Your task to perform on an android device: Empty the shopping cart on newegg.com. Add dell xps to the cart on newegg.com Image 0: 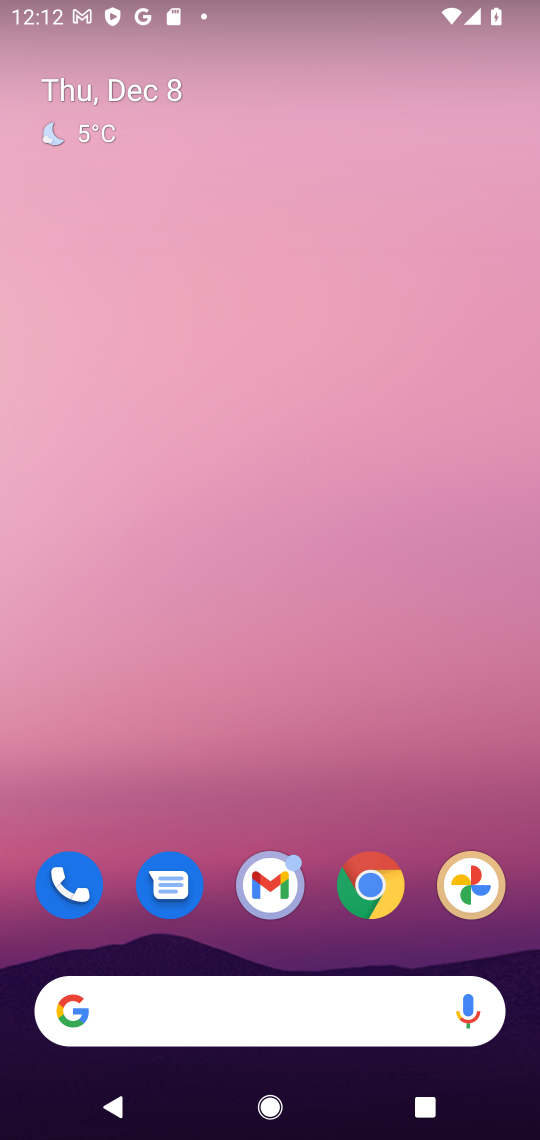
Step 0: click (361, 874)
Your task to perform on an android device: Empty the shopping cart on newegg.com. Add dell xps to the cart on newegg.com Image 1: 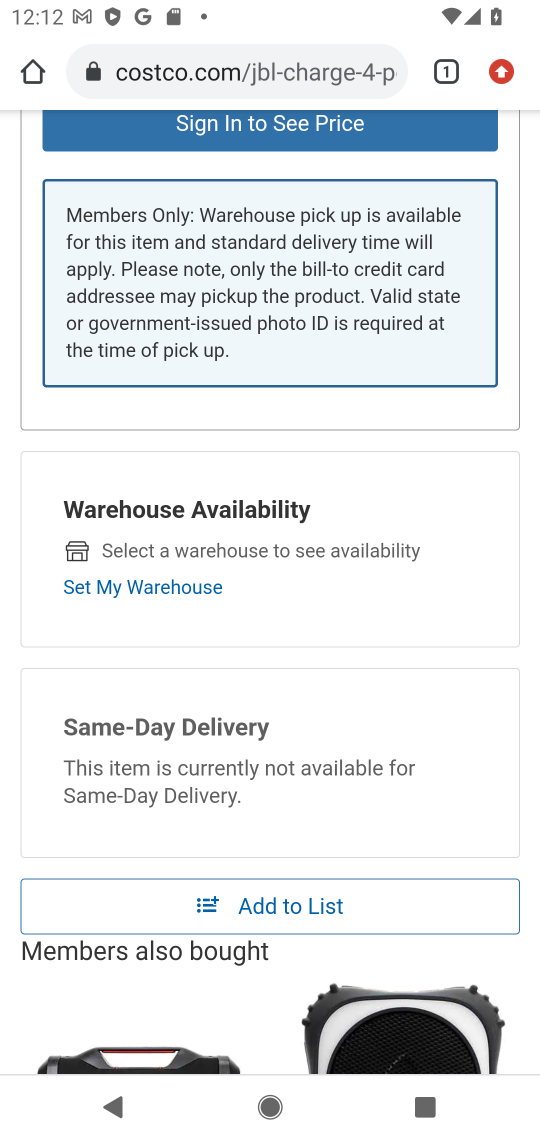
Step 1: click (329, 76)
Your task to perform on an android device: Empty the shopping cart on newegg.com. Add dell xps to the cart on newegg.com Image 2: 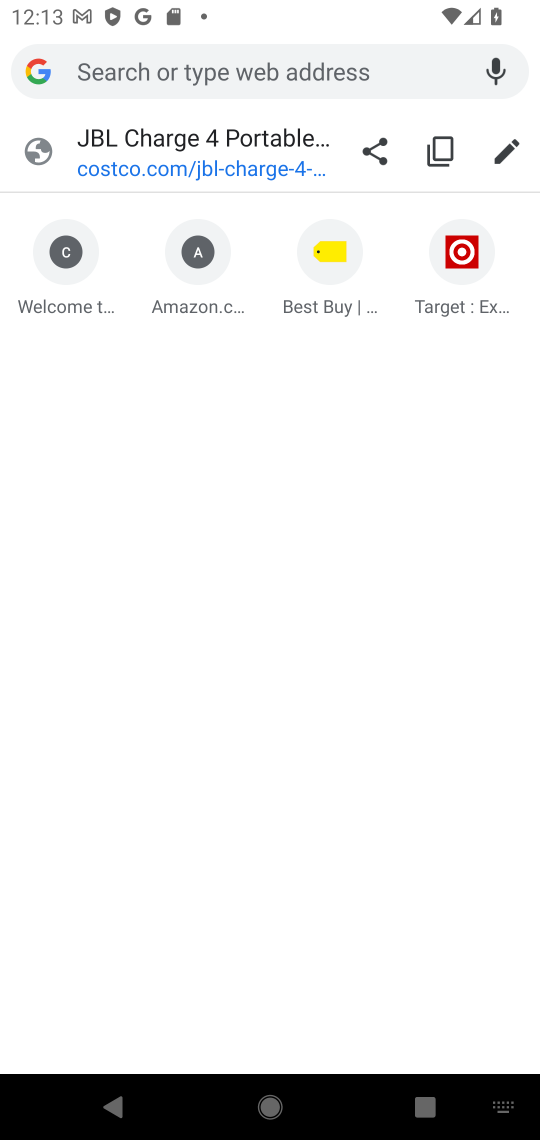
Step 2: type "NEWEGG"
Your task to perform on an android device: Empty the shopping cart on newegg.com. Add dell xps to the cart on newegg.com Image 3: 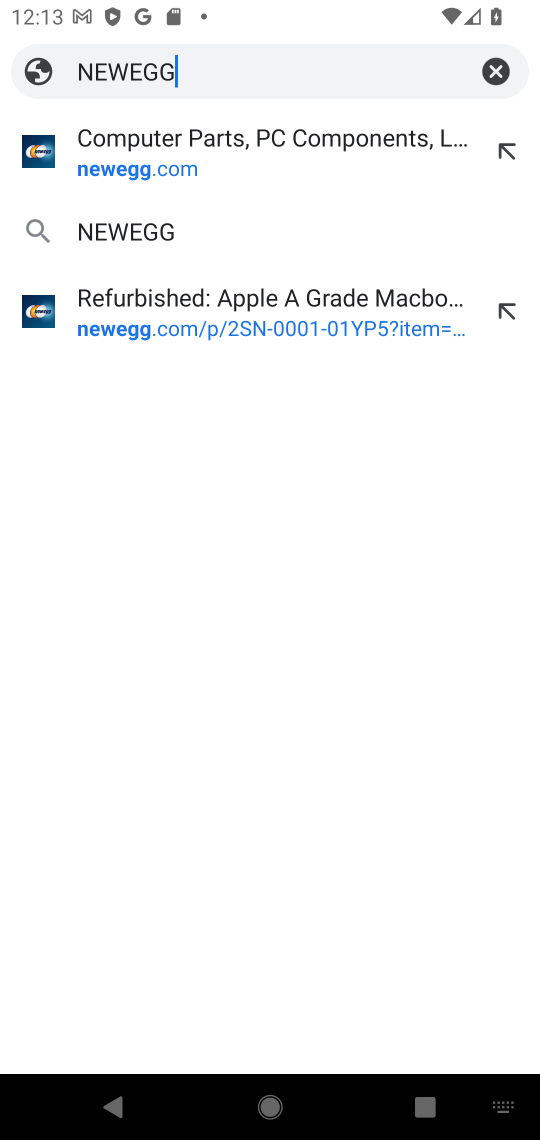
Step 3: click (222, 151)
Your task to perform on an android device: Empty the shopping cart on newegg.com. Add dell xps to the cart on newegg.com Image 4: 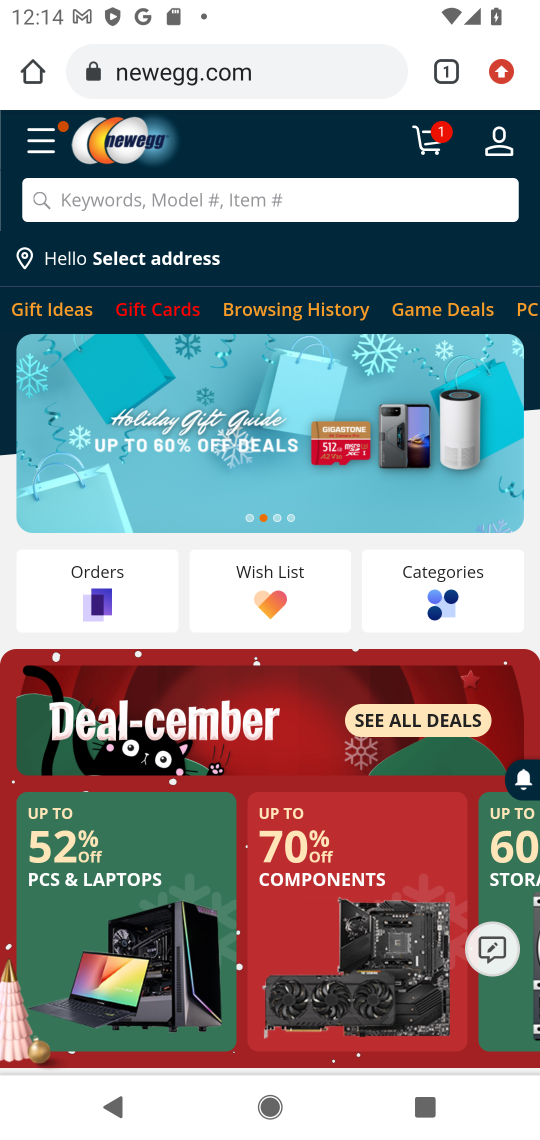
Step 4: click (424, 133)
Your task to perform on an android device: Empty the shopping cart on newegg.com. Add dell xps to the cart on newegg.com Image 5: 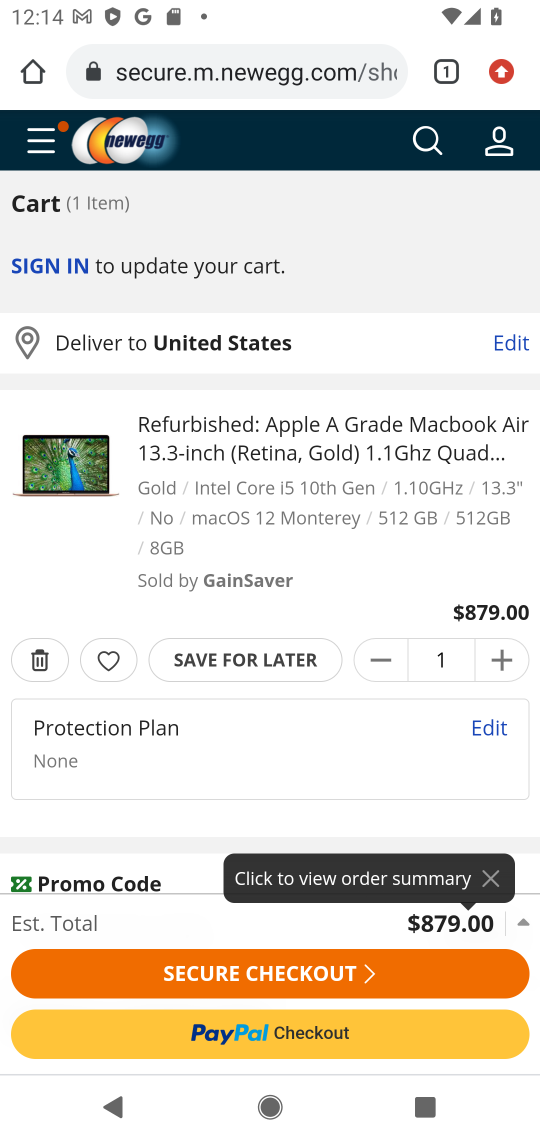
Step 5: click (34, 655)
Your task to perform on an android device: Empty the shopping cart on newegg.com. Add dell xps to the cart on newegg.com Image 6: 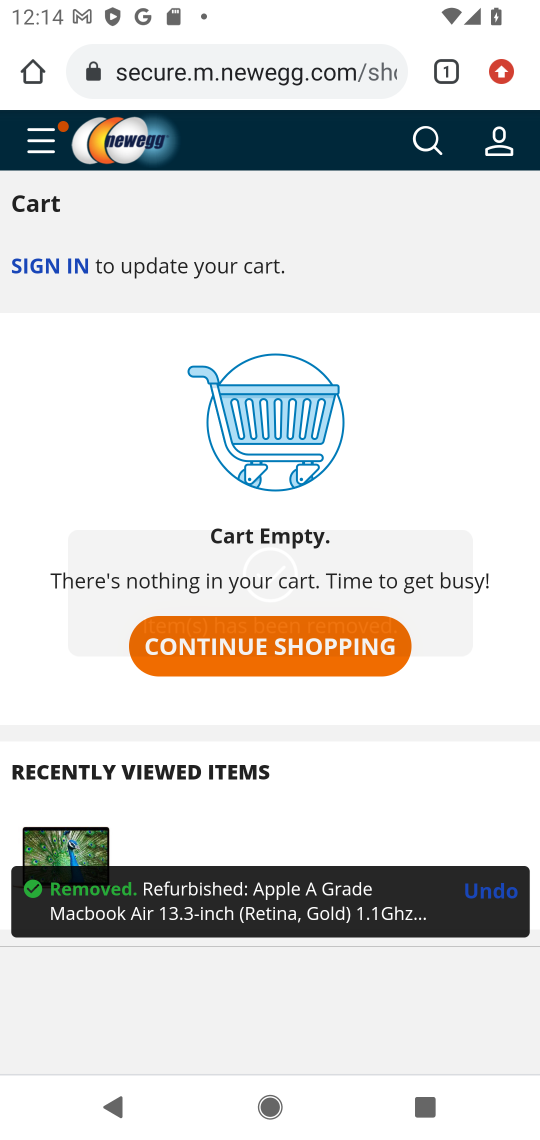
Step 6: click (418, 146)
Your task to perform on an android device: Empty the shopping cart on newegg.com. Add dell xps to the cart on newegg.com Image 7: 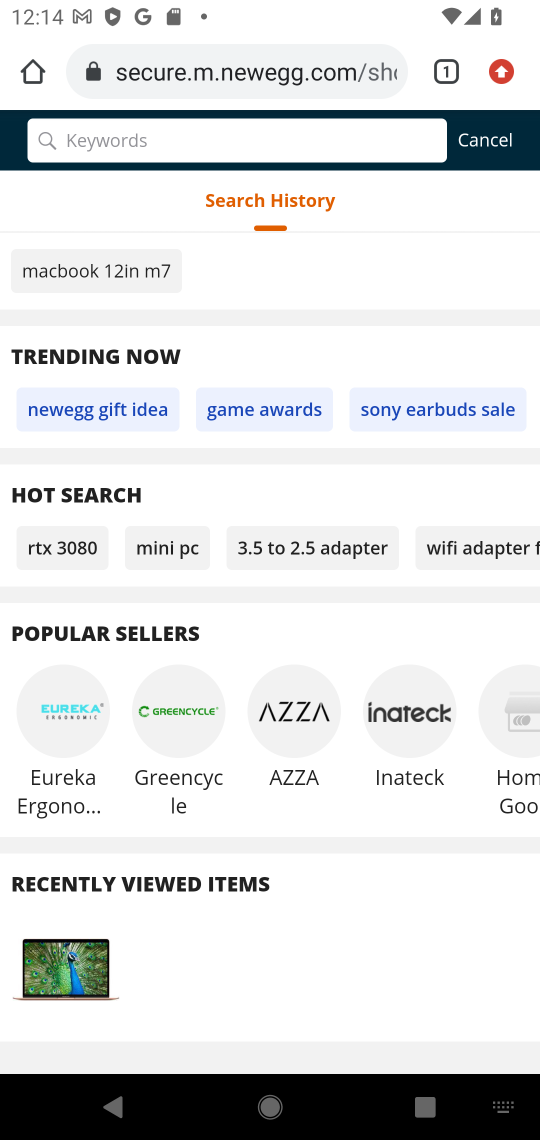
Step 7: type "DELL XPS"
Your task to perform on an android device: Empty the shopping cart on newegg.com. Add dell xps to the cart on newegg.com Image 8: 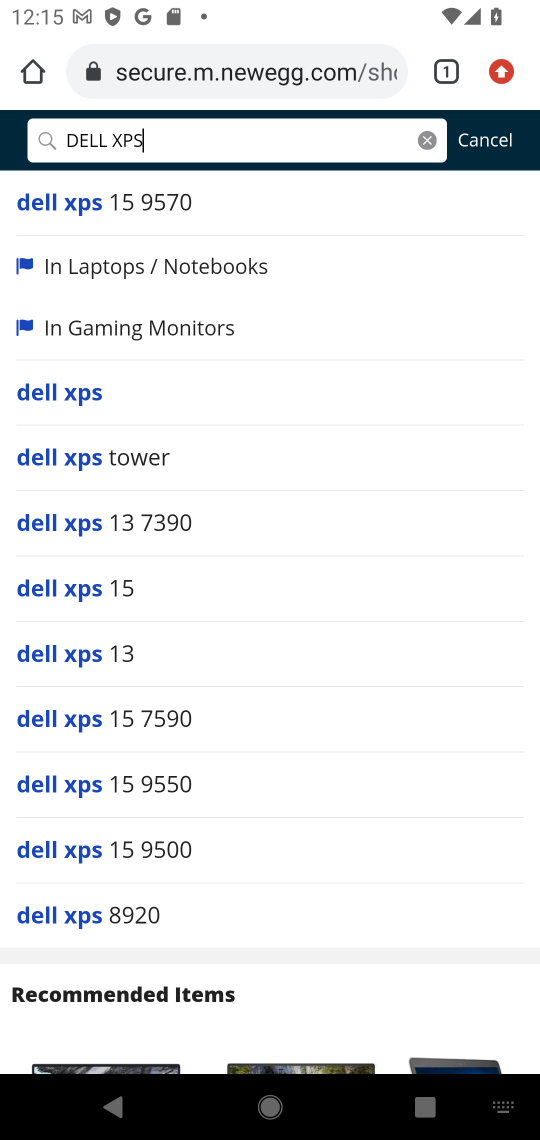
Step 8: click (99, 201)
Your task to perform on an android device: Empty the shopping cart on newegg.com. Add dell xps to the cart on newegg.com Image 9: 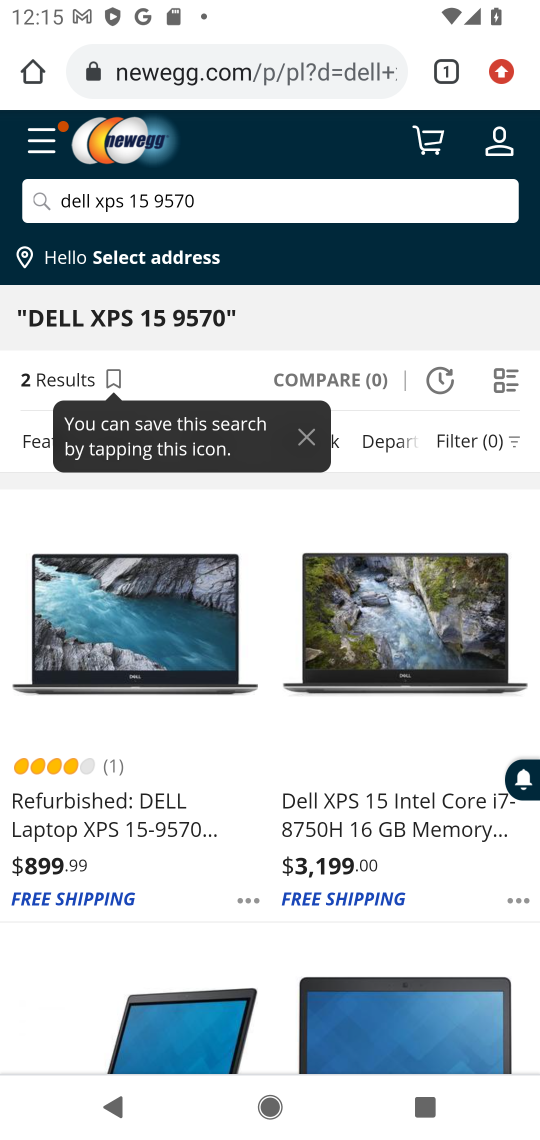
Step 9: click (82, 594)
Your task to perform on an android device: Empty the shopping cart on newegg.com. Add dell xps to the cart on newegg.com Image 10: 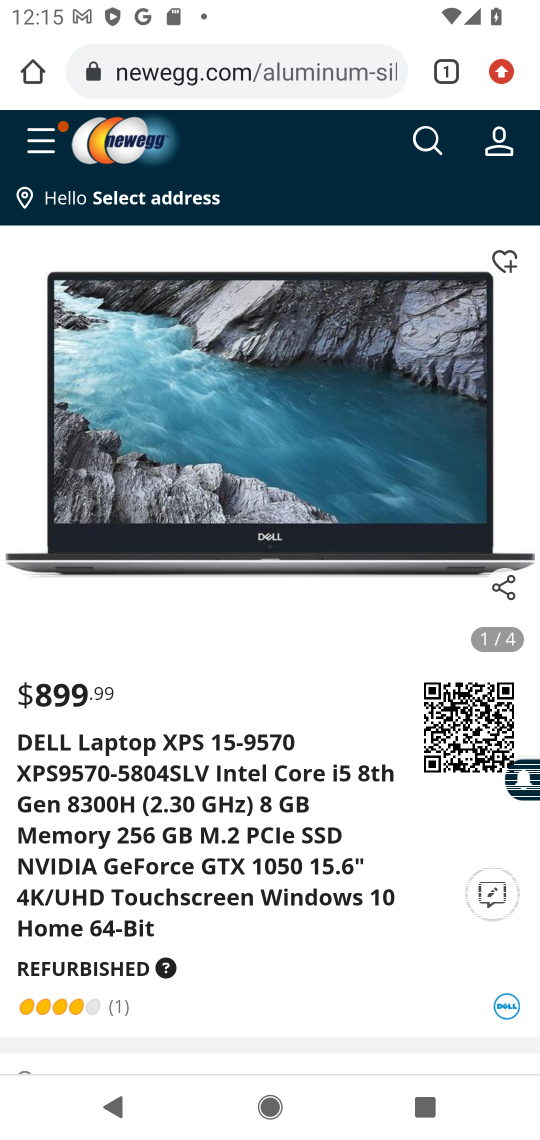
Step 10: click (292, 1038)
Your task to perform on an android device: Empty the shopping cart on newegg.com. Add dell xps to the cart on newegg.com Image 11: 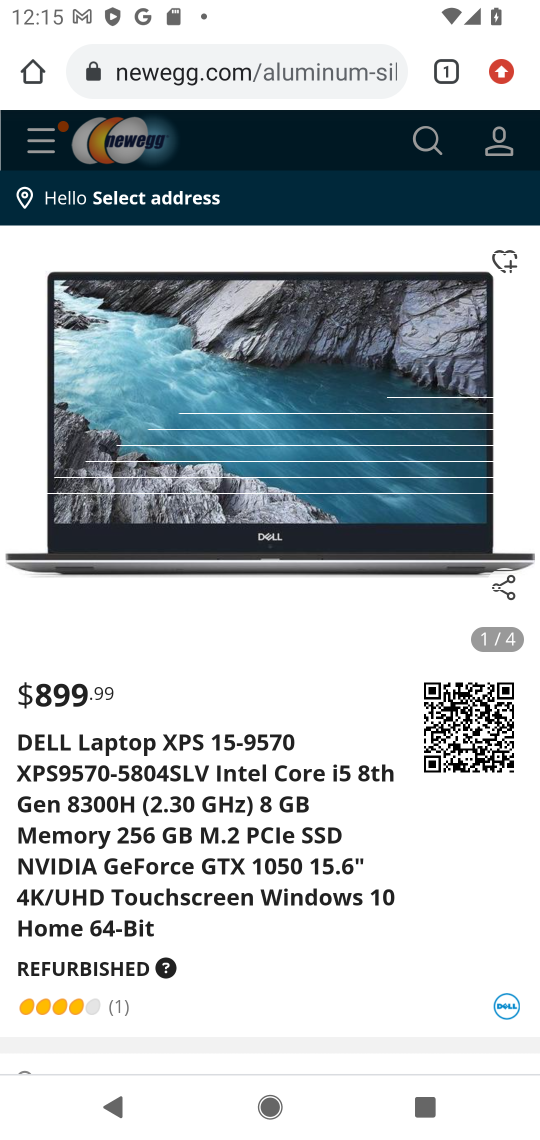
Step 11: click (292, 1038)
Your task to perform on an android device: Empty the shopping cart on newegg.com. Add dell xps to the cart on newegg.com Image 12: 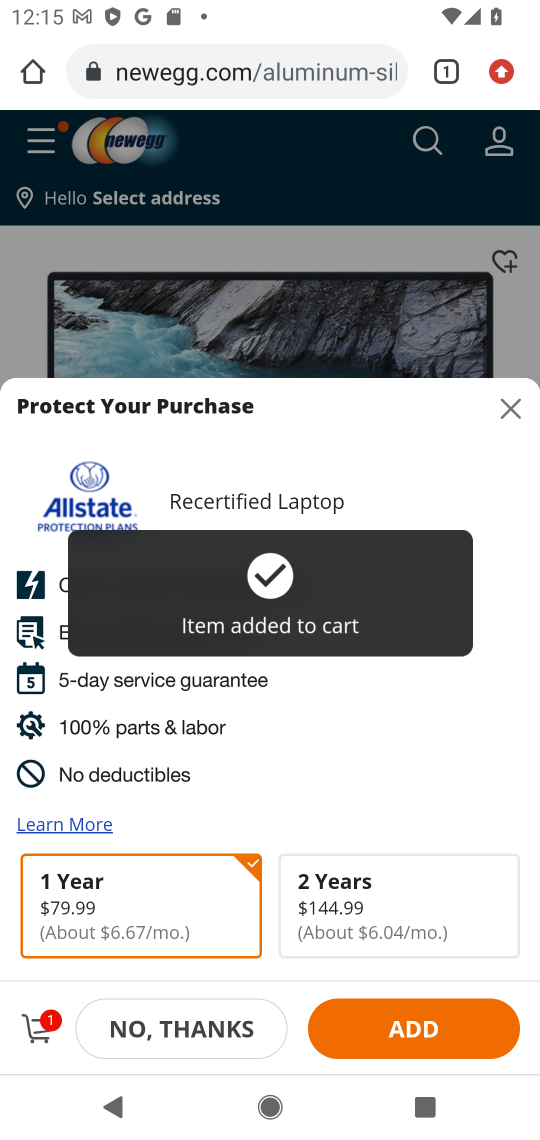
Step 12: click (292, 1038)
Your task to perform on an android device: Empty the shopping cart on newegg.com. Add dell xps to the cart on newegg.com Image 13: 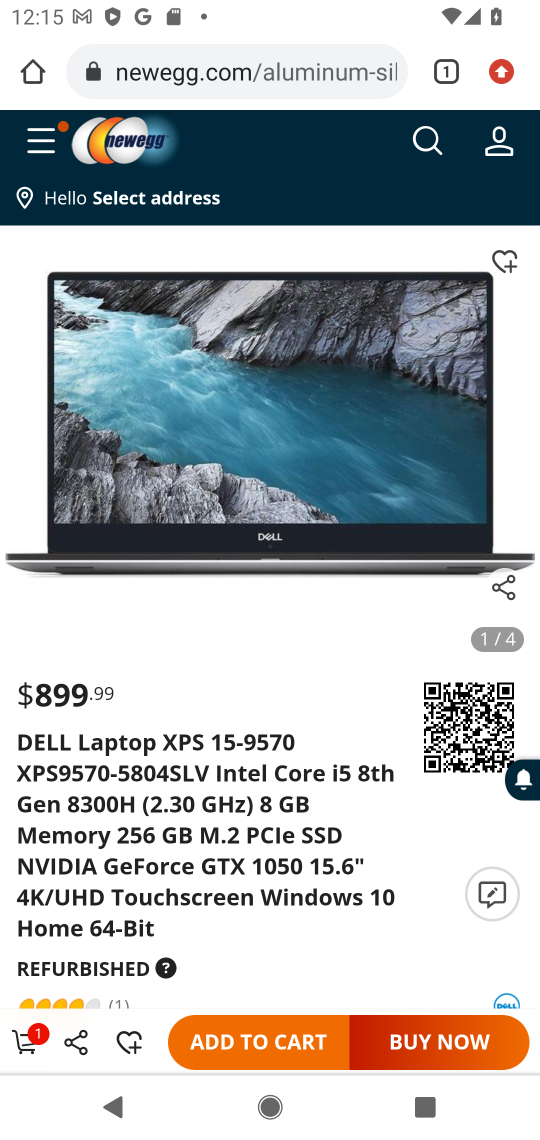
Step 13: click (212, 1028)
Your task to perform on an android device: Empty the shopping cart on newegg.com. Add dell xps to the cart on newegg.com Image 14: 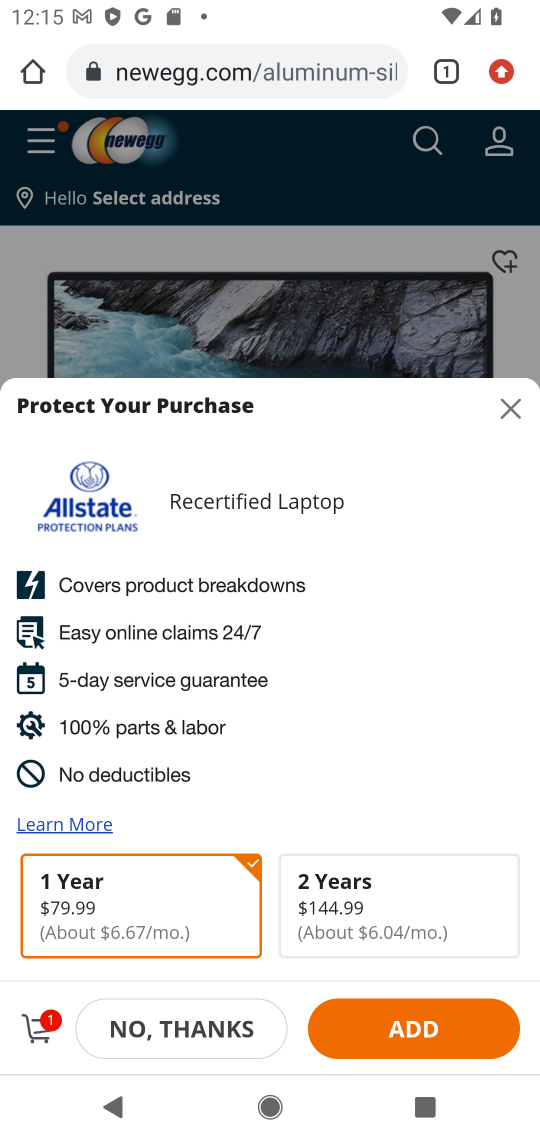
Step 14: click (161, 1031)
Your task to perform on an android device: Empty the shopping cart on newegg.com. Add dell xps to the cart on newegg.com Image 15: 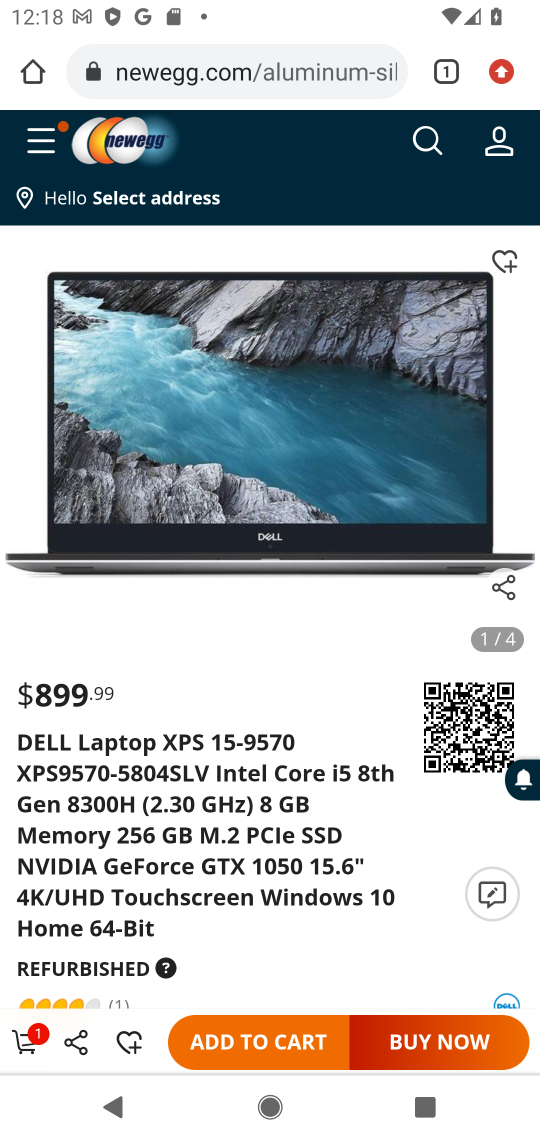
Step 15: task complete